Your task to perform on an android device: Go to Maps Image 0: 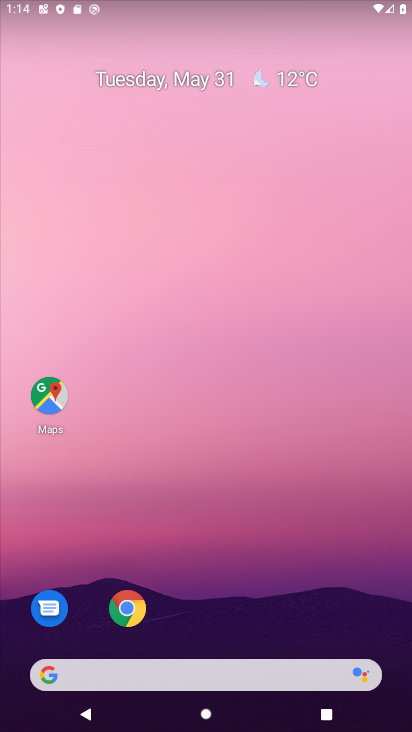
Step 0: drag from (307, 603) to (308, 224)
Your task to perform on an android device: Go to Maps Image 1: 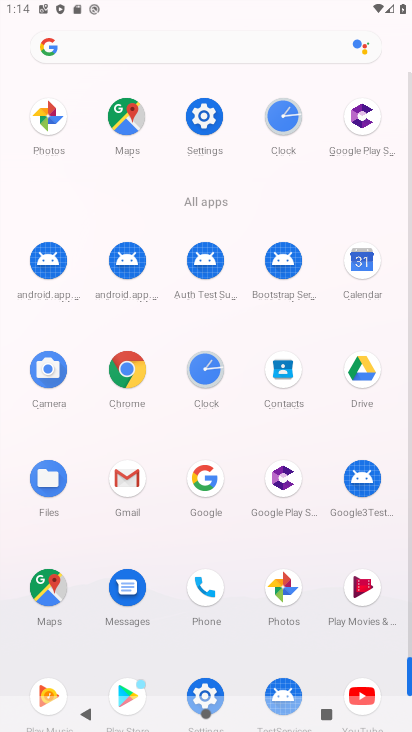
Step 1: click (125, 123)
Your task to perform on an android device: Go to Maps Image 2: 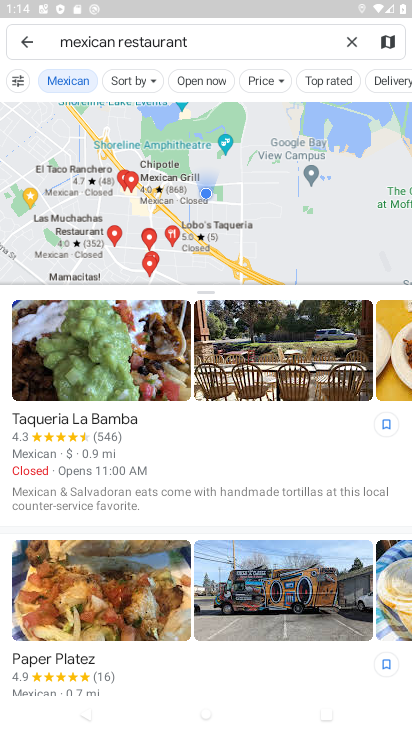
Step 2: click (359, 45)
Your task to perform on an android device: Go to Maps Image 3: 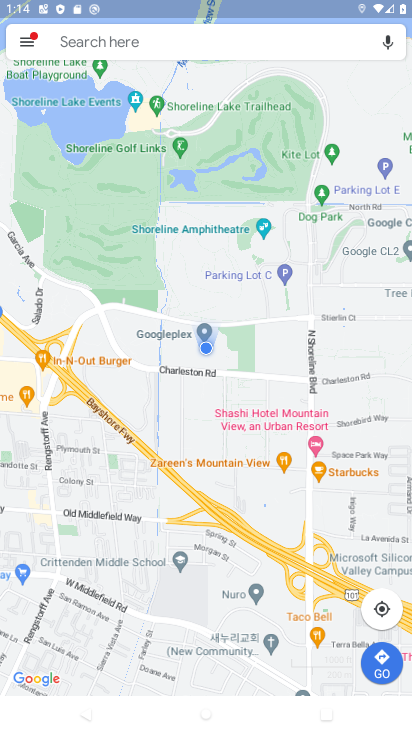
Step 3: task complete